Your task to perform on an android device: open the mobile data screen to see how much data has been used Image 0: 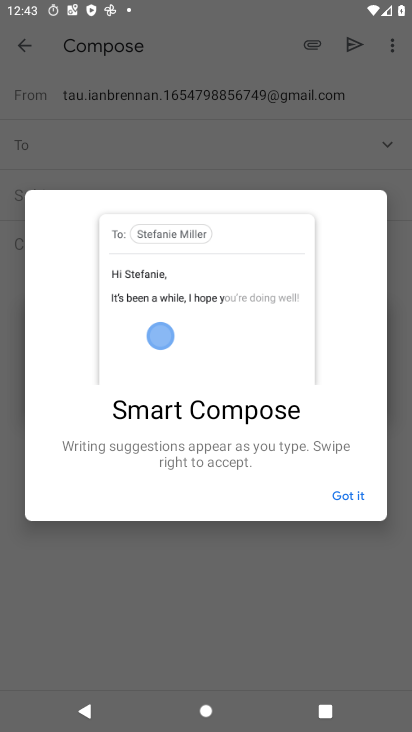
Step 0: press home button
Your task to perform on an android device: open the mobile data screen to see how much data has been used Image 1: 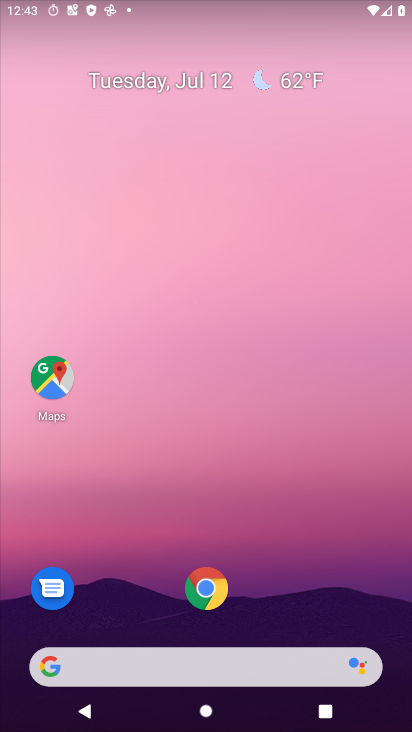
Step 1: click (266, 587)
Your task to perform on an android device: open the mobile data screen to see how much data has been used Image 2: 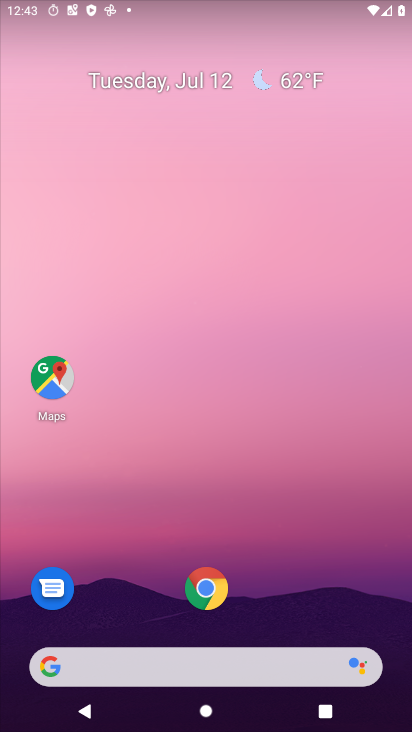
Step 2: drag from (242, 629) to (219, 146)
Your task to perform on an android device: open the mobile data screen to see how much data has been used Image 3: 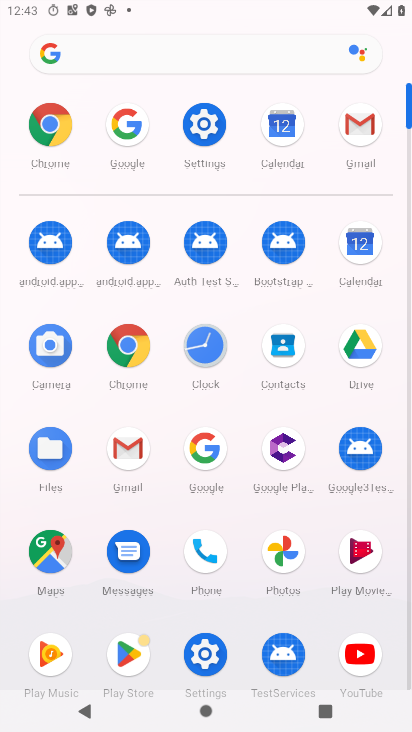
Step 3: click (203, 129)
Your task to perform on an android device: open the mobile data screen to see how much data has been used Image 4: 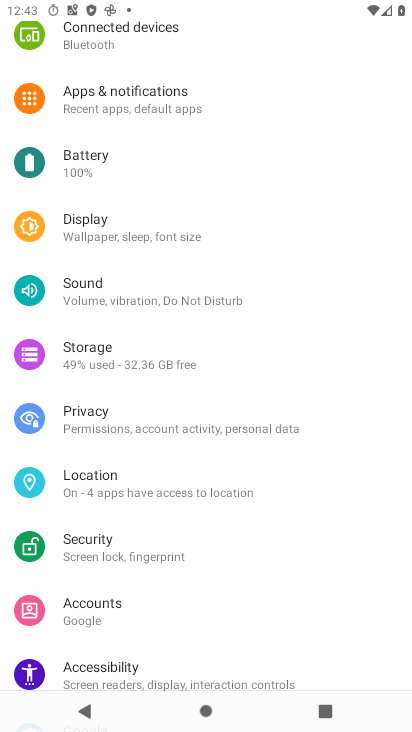
Step 4: drag from (201, 143) to (208, 586)
Your task to perform on an android device: open the mobile data screen to see how much data has been used Image 5: 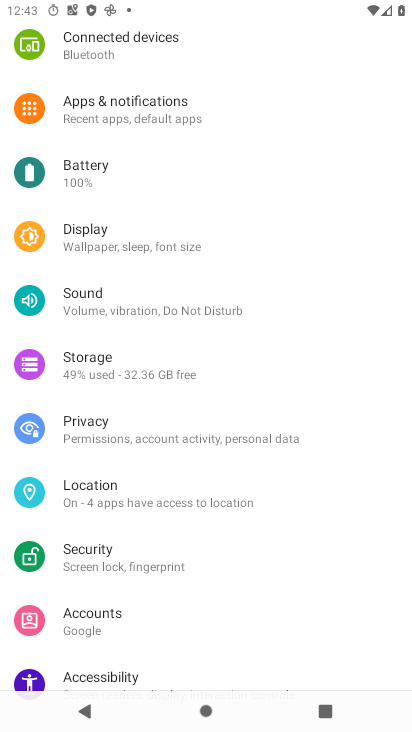
Step 5: drag from (208, 320) to (231, 676)
Your task to perform on an android device: open the mobile data screen to see how much data has been used Image 6: 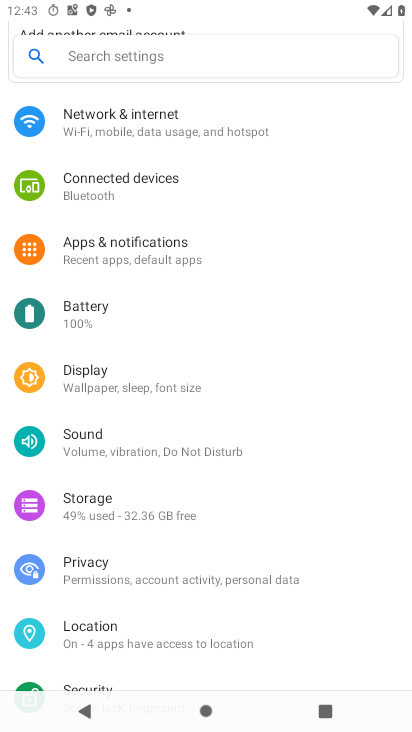
Step 6: click (137, 116)
Your task to perform on an android device: open the mobile data screen to see how much data has been used Image 7: 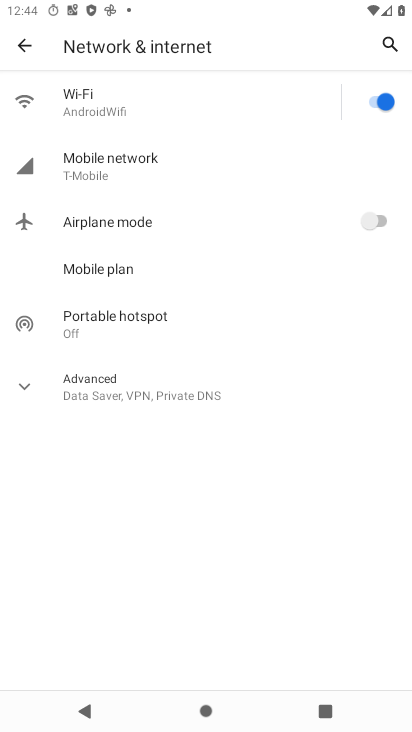
Step 7: task complete